Your task to perform on an android device: Open display settings Image 0: 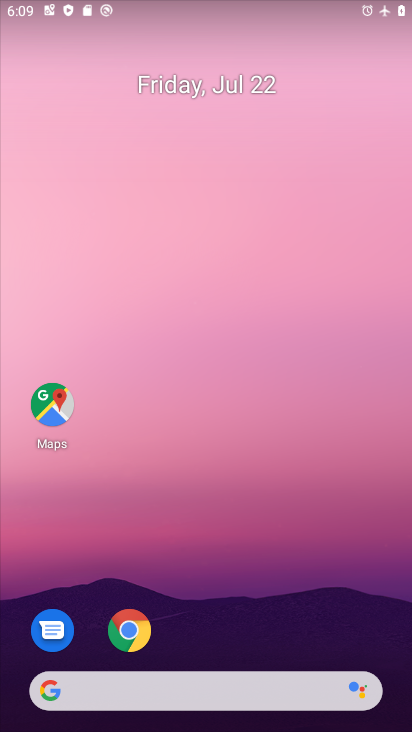
Step 0: drag from (311, 681) to (286, 12)
Your task to perform on an android device: Open display settings Image 1: 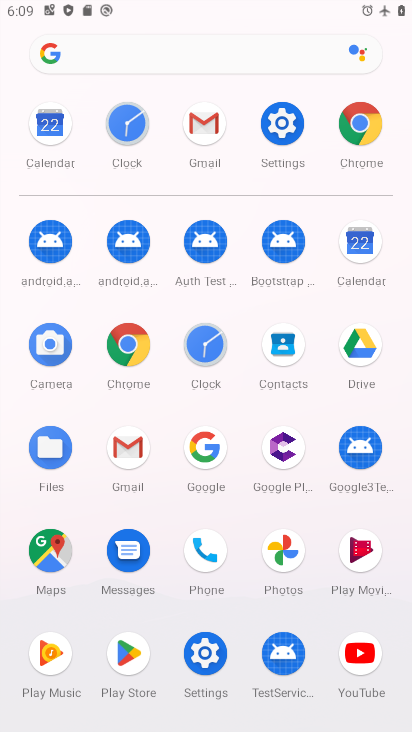
Step 1: click (276, 118)
Your task to perform on an android device: Open display settings Image 2: 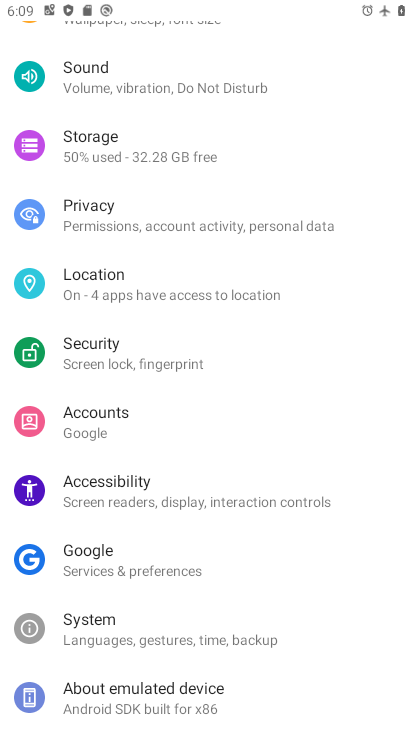
Step 2: drag from (135, 217) to (174, 589)
Your task to perform on an android device: Open display settings Image 3: 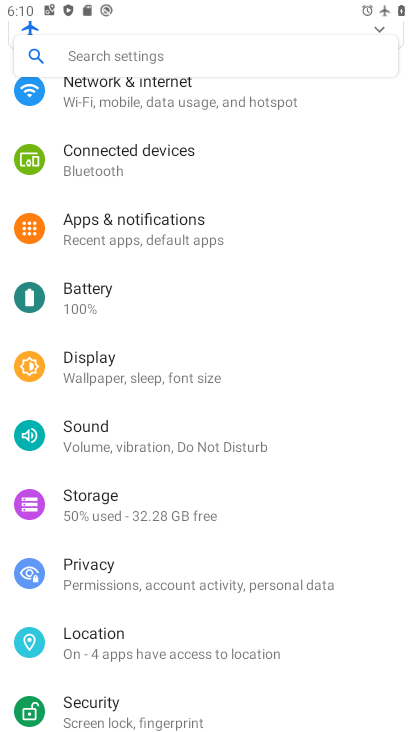
Step 3: click (127, 367)
Your task to perform on an android device: Open display settings Image 4: 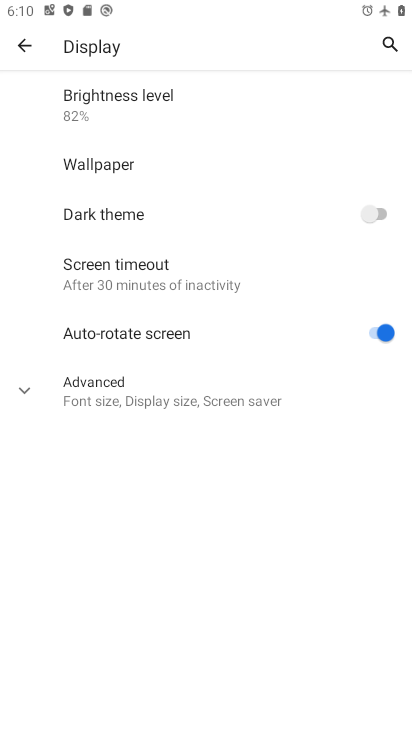
Step 4: task complete